Your task to perform on an android device: Go to sound settings Image 0: 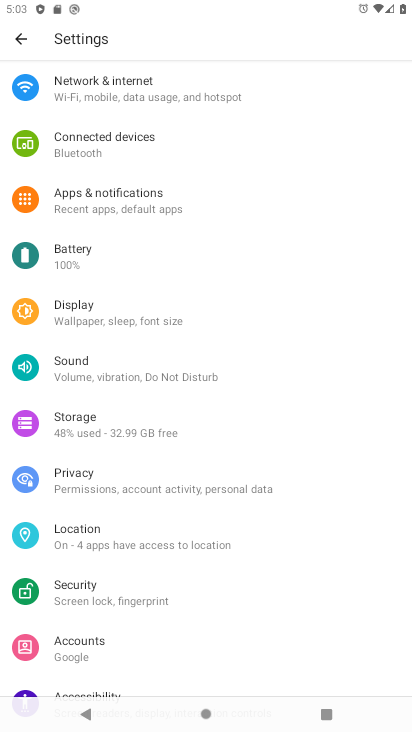
Step 0: click (107, 368)
Your task to perform on an android device: Go to sound settings Image 1: 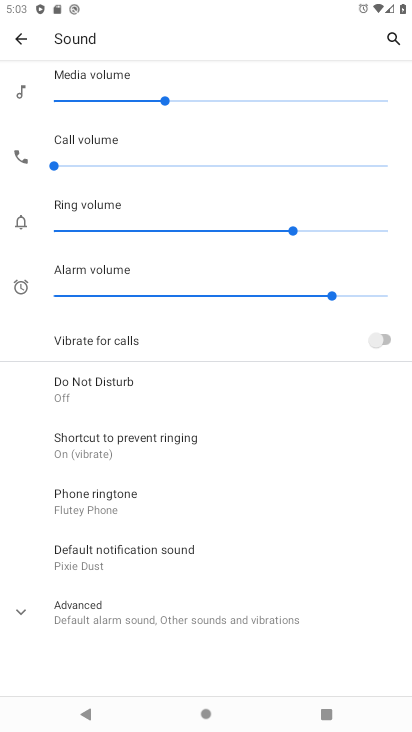
Step 1: task complete